Your task to perform on an android device: Open calendar and show me the fourth week of next month Image 0: 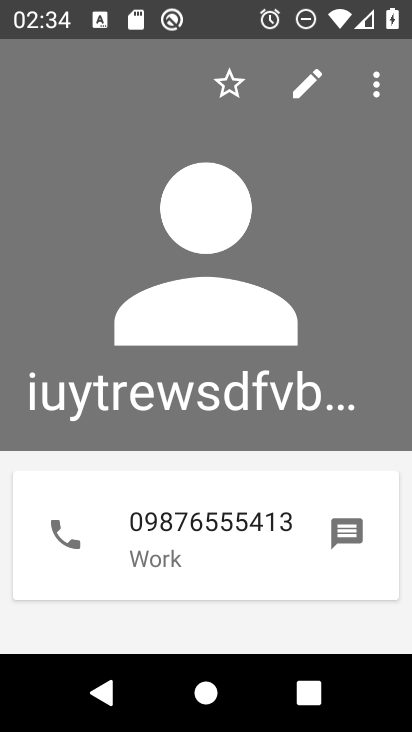
Step 0: press home button
Your task to perform on an android device: Open calendar and show me the fourth week of next month Image 1: 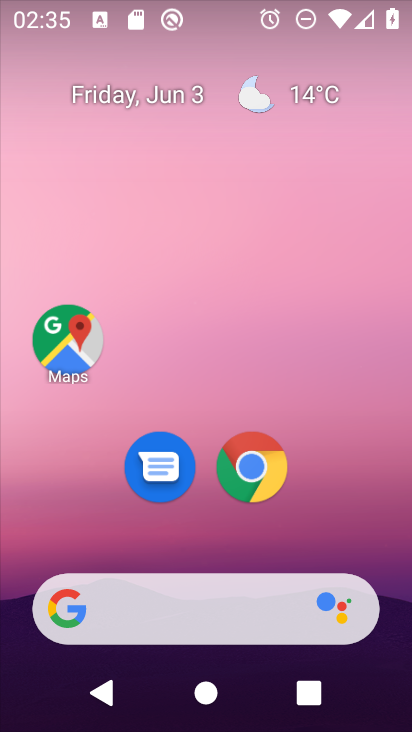
Step 1: drag from (391, 596) to (347, 138)
Your task to perform on an android device: Open calendar and show me the fourth week of next month Image 2: 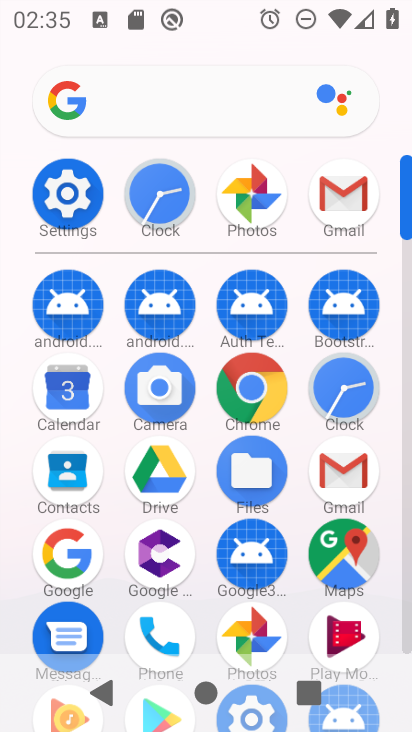
Step 2: click (73, 394)
Your task to perform on an android device: Open calendar and show me the fourth week of next month Image 3: 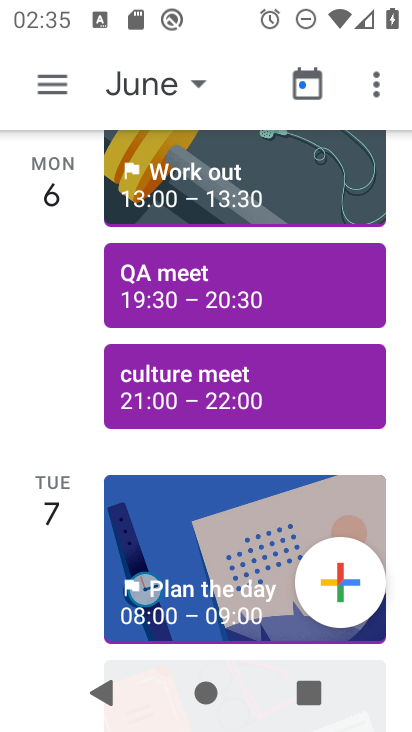
Step 3: click (54, 83)
Your task to perform on an android device: Open calendar and show me the fourth week of next month Image 4: 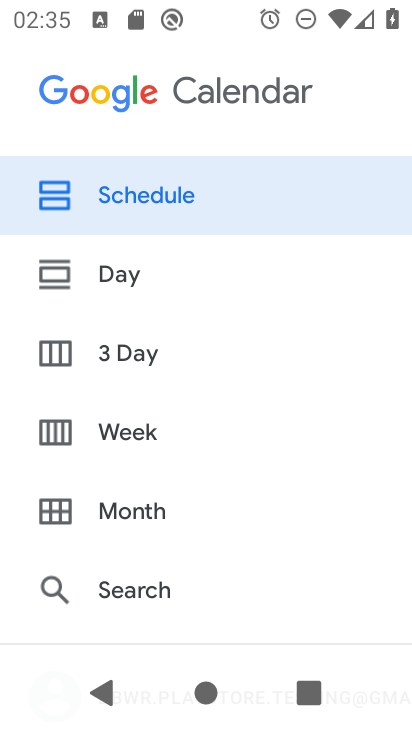
Step 4: click (127, 424)
Your task to perform on an android device: Open calendar and show me the fourth week of next month Image 5: 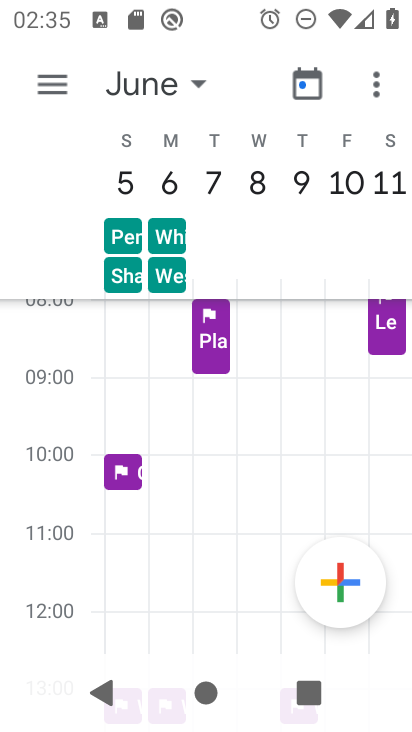
Step 5: click (196, 84)
Your task to perform on an android device: Open calendar and show me the fourth week of next month Image 6: 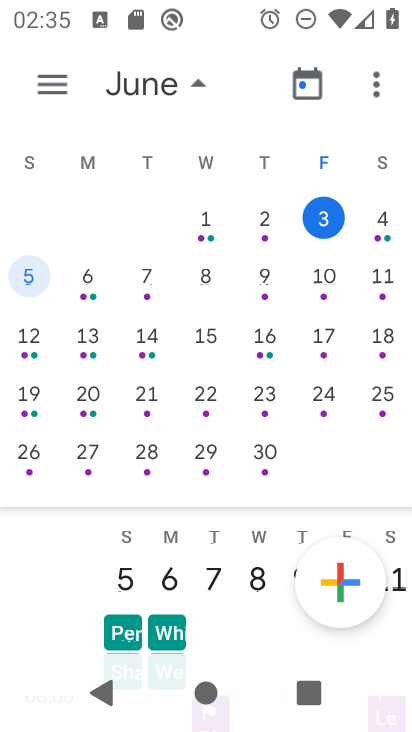
Step 6: drag from (359, 323) to (59, 265)
Your task to perform on an android device: Open calendar and show me the fourth week of next month Image 7: 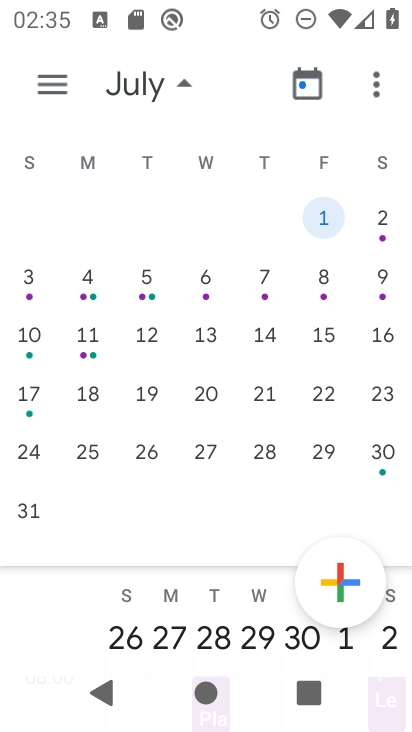
Step 7: click (32, 442)
Your task to perform on an android device: Open calendar and show me the fourth week of next month Image 8: 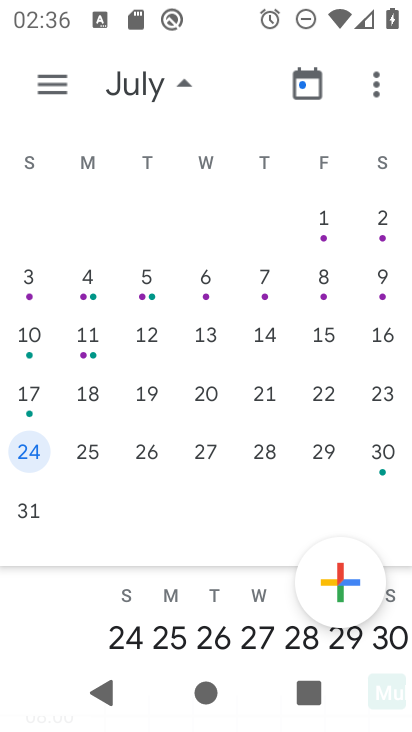
Step 8: task complete